Your task to perform on an android device: check out phone information Image 0: 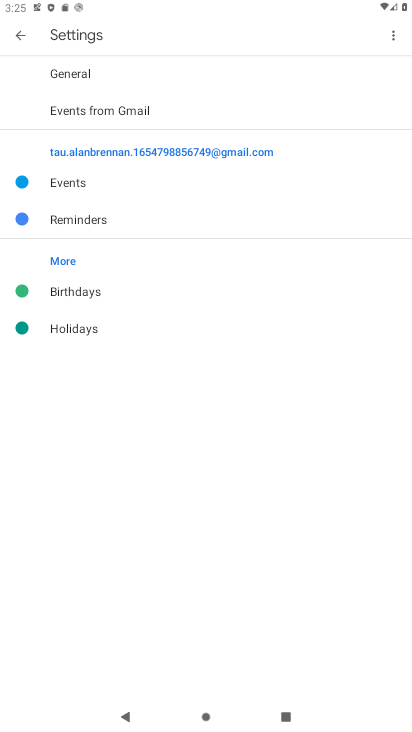
Step 0: press home button
Your task to perform on an android device: check out phone information Image 1: 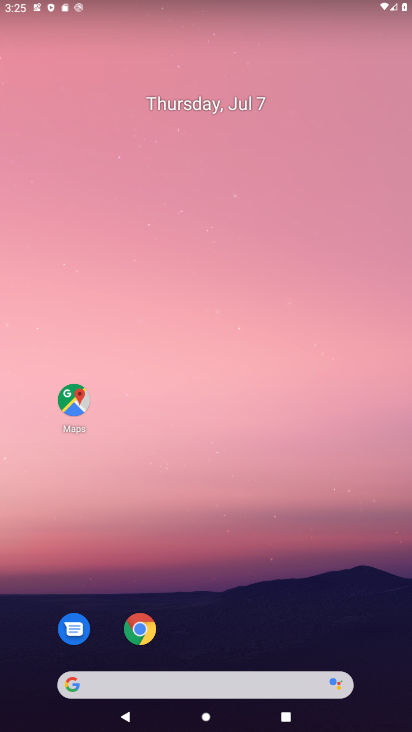
Step 1: drag from (232, 617) to (164, 193)
Your task to perform on an android device: check out phone information Image 2: 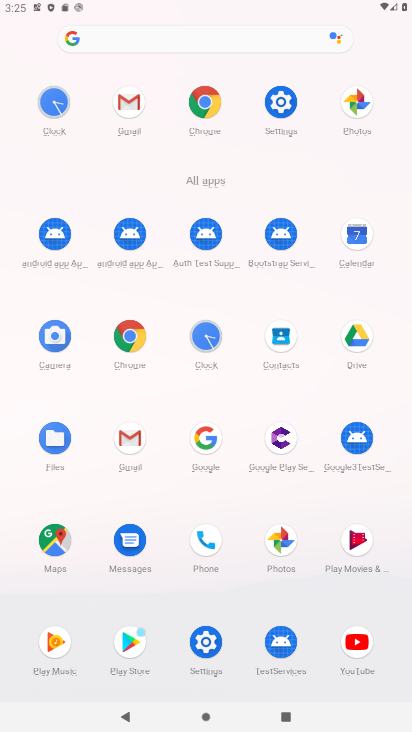
Step 2: click (270, 100)
Your task to perform on an android device: check out phone information Image 3: 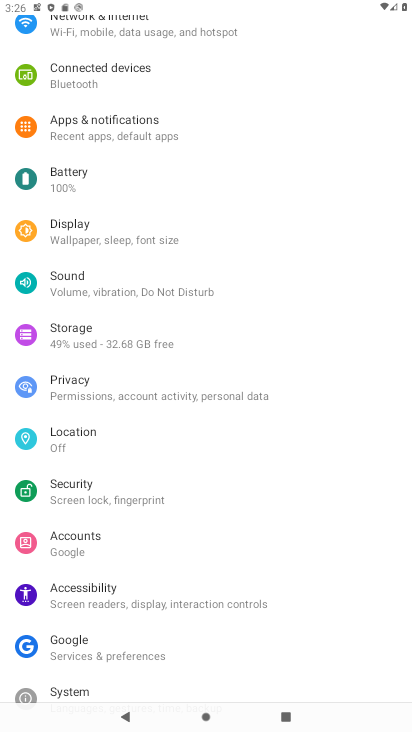
Step 3: drag from (177, 663) to (156, 123)
Your task to perform on an android device: check out phone information Image 4: 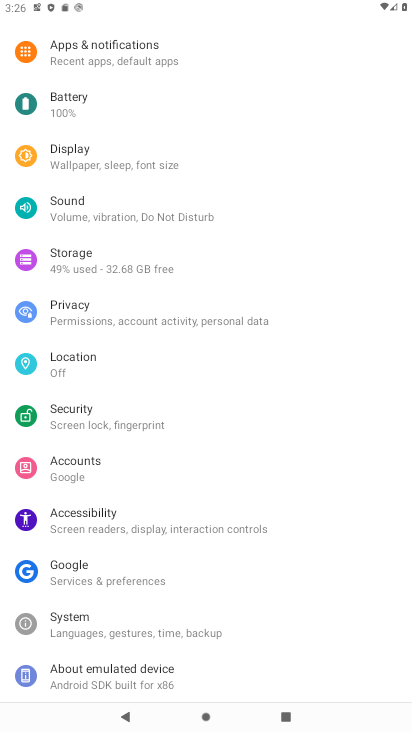
Step 4: click (95, 684)
Your task to perform on an android device: check out phone information Image 5: 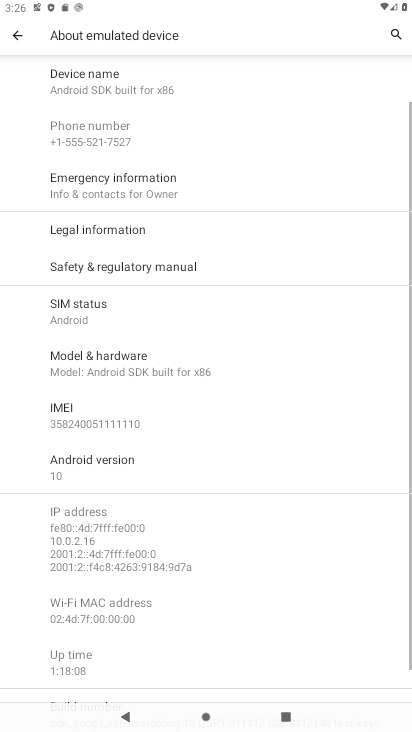
Step 5: task complete